Your task to perform on an android device: Go to sound settings Image 0: 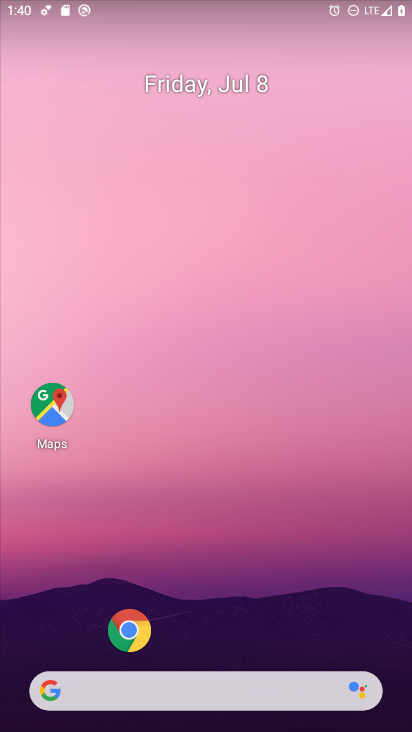
Step 0: drag from (282, 704) to (403, 5)
Your task to perform on an android device: Go to sound settings Image 1: 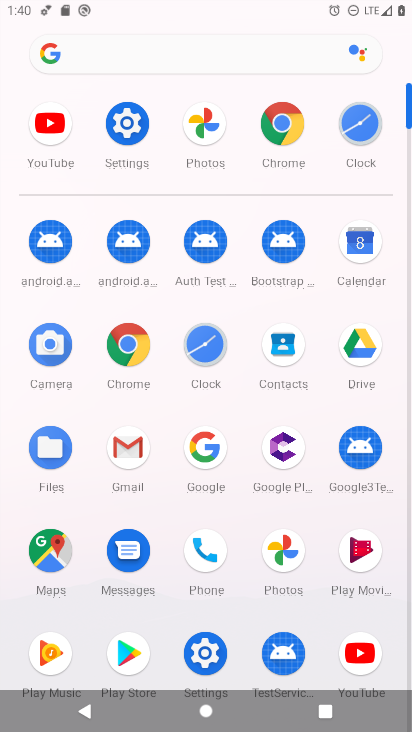
Step 1: click (120, 121)
Your task to perform on an android device: Go to sound settings Image 2: 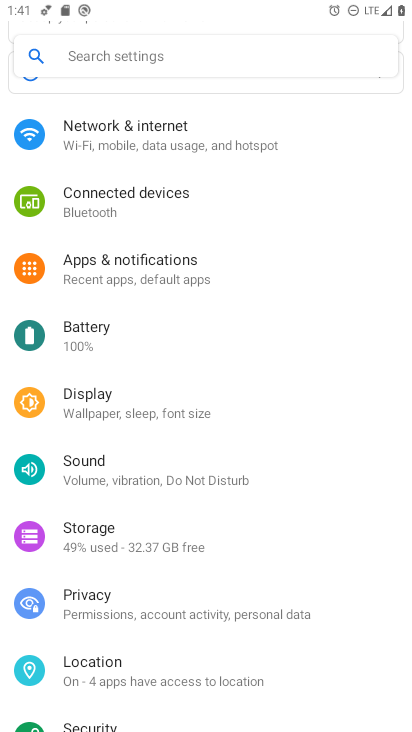
Step 2: click (144, 470)
Your task to perform on an android device: Go to sound settings Image 3: 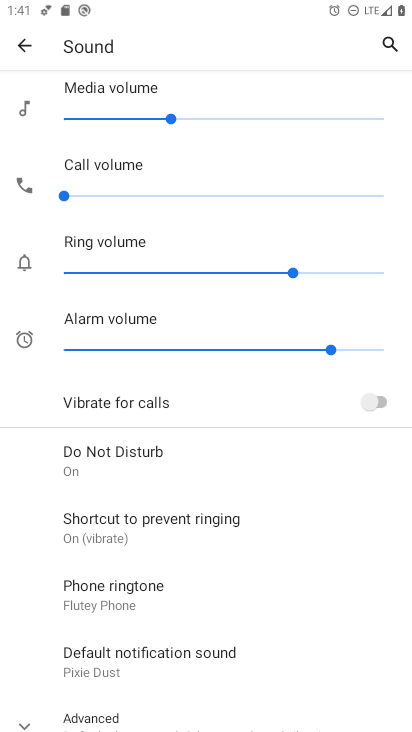
Step 3: task complete